Your task to perform on an android device: install app "Adobe Express: Graphic Design" Image 0: 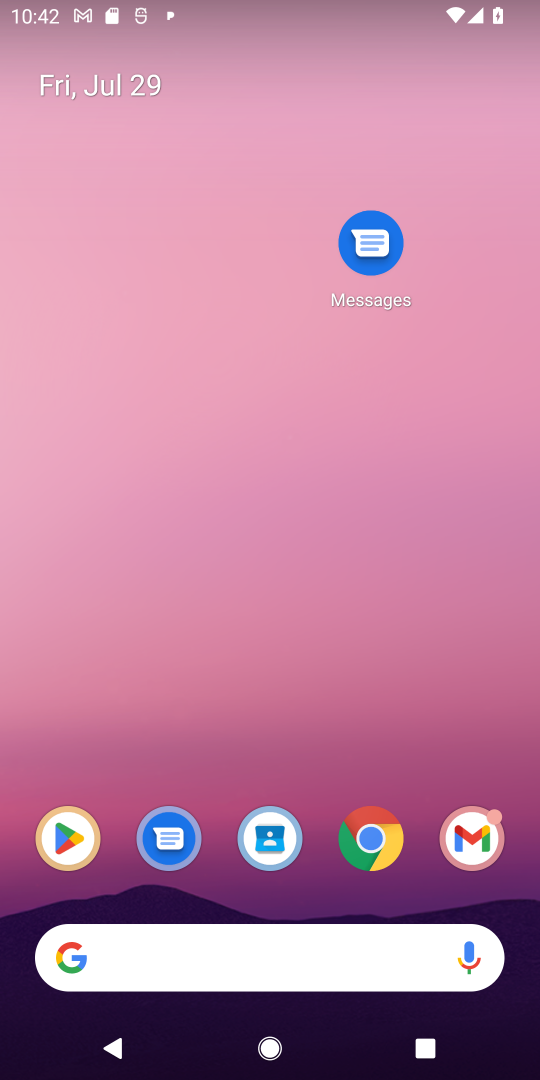
Step 0: click (86, 856)
Your task to perform on an android device: install app "Adobe Express: Graphic Design" Image 1: 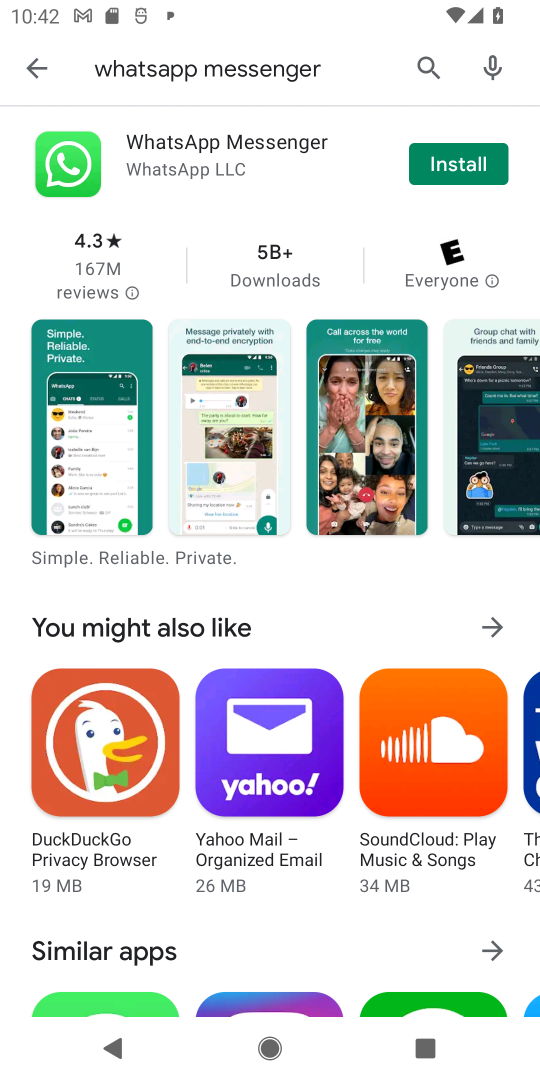
Step 1: click (210, 71)
Your task to perform on an android device: install app "Adobe Express: Graphic Design" Image 2: 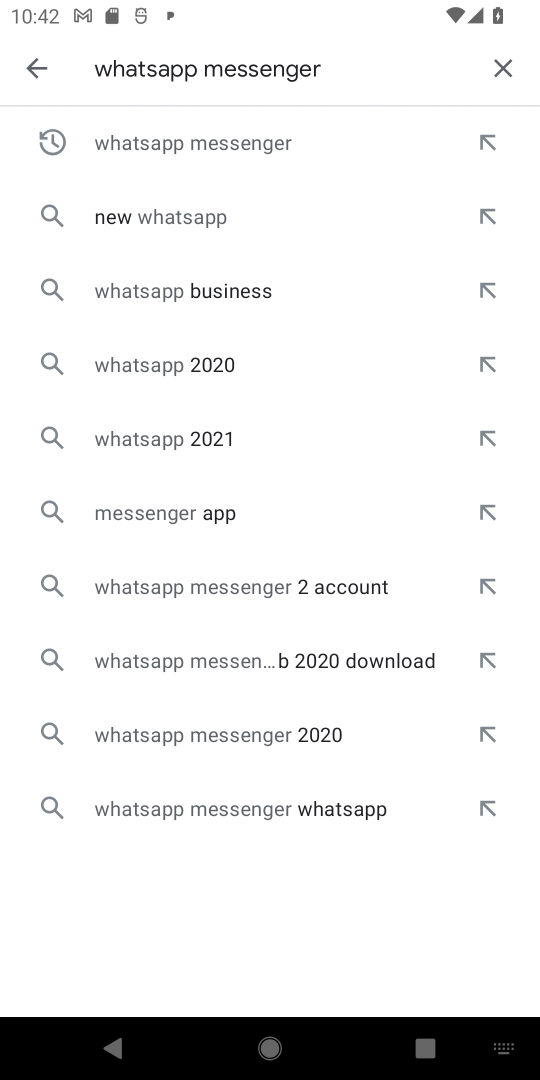
Step 2: click (499, 61)
Your task to perform on an android device: install app "Adobe Express: Graphic Design" Image 3: 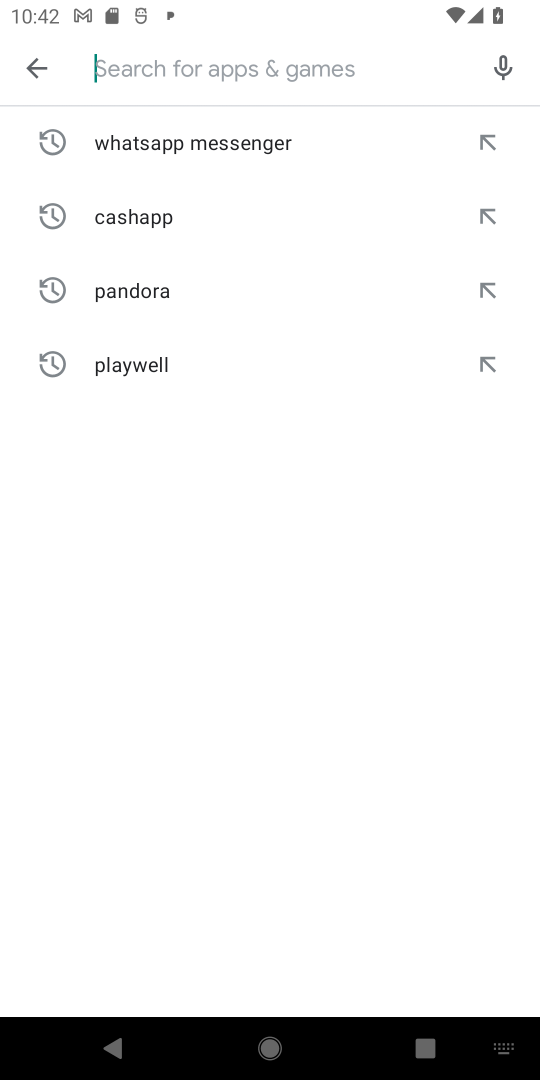
Step 3: type "Adobe Express"
Your task to perform on an android device: install app "Adobe Express: Graphic Design" Image 4: 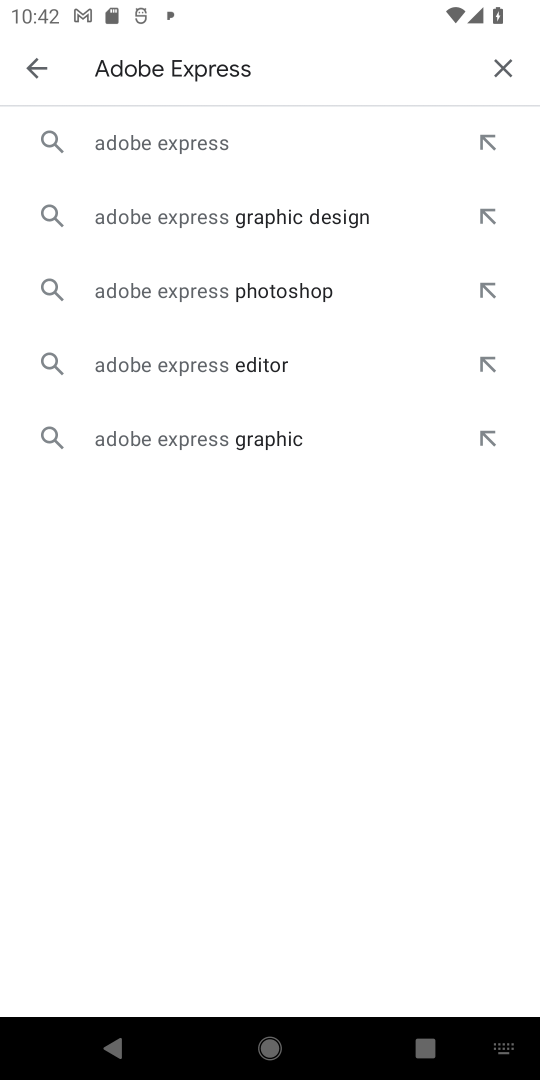
Step 4: click (201, 162)
Your task to perform on an android device: install app "Adobe Express: Graphic Design" Image 5: 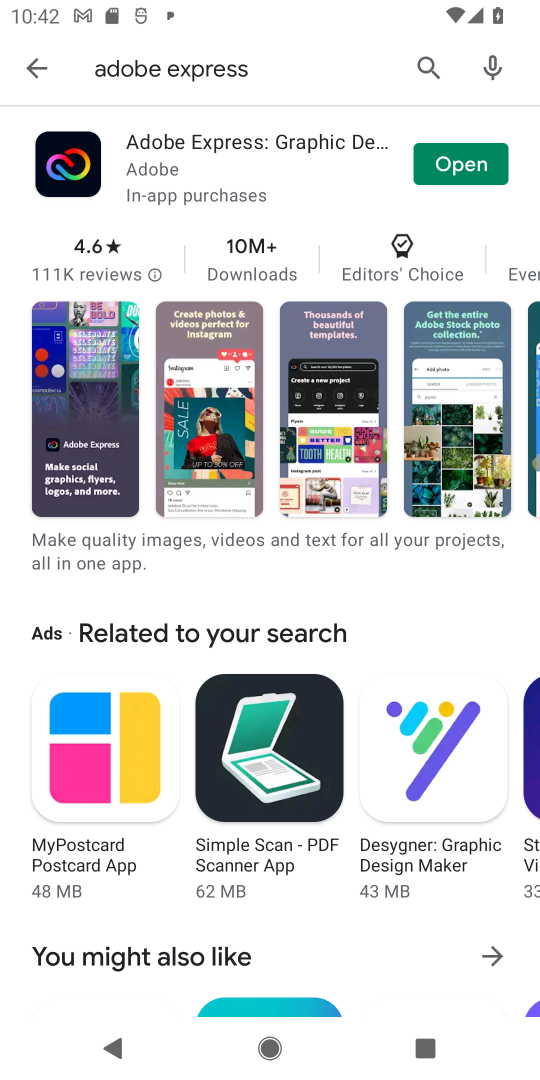
Step 5: click (339, 152)
Your task to perform on an android device: install app "Adobe Express: Graphic Design" Image 6: 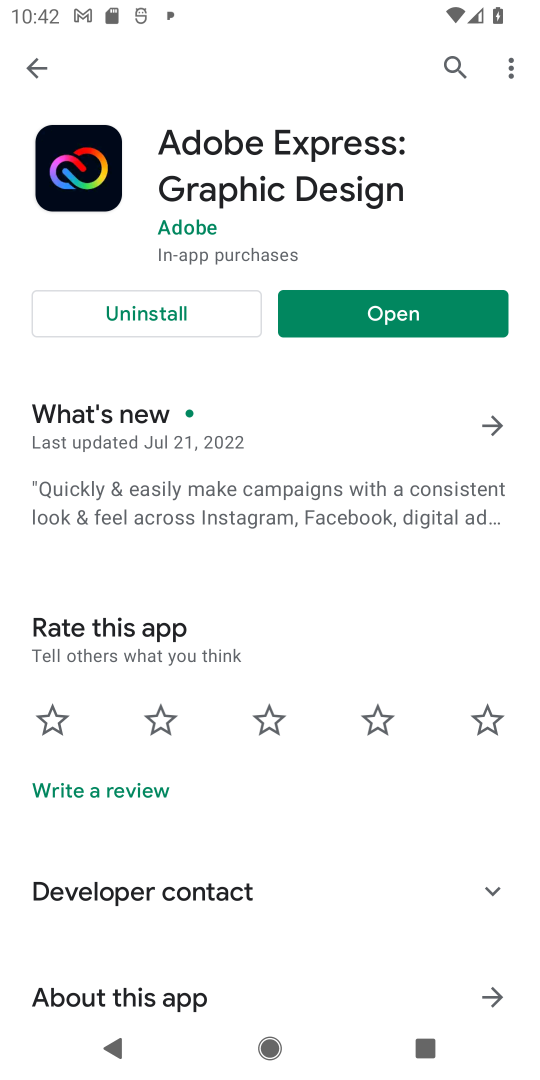
Step 6: task complete